Your task to perform on an android device: See recent photos Image 0: 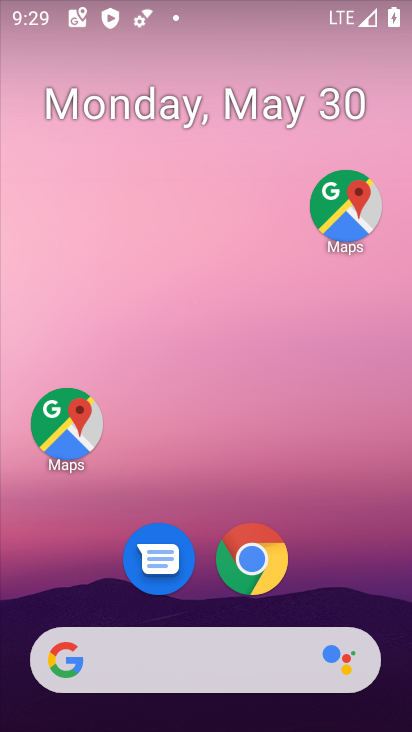
Step 0: drag from (316, 565) to (364, 132)
Your task to perform on an android device: See recent photos Image 1: 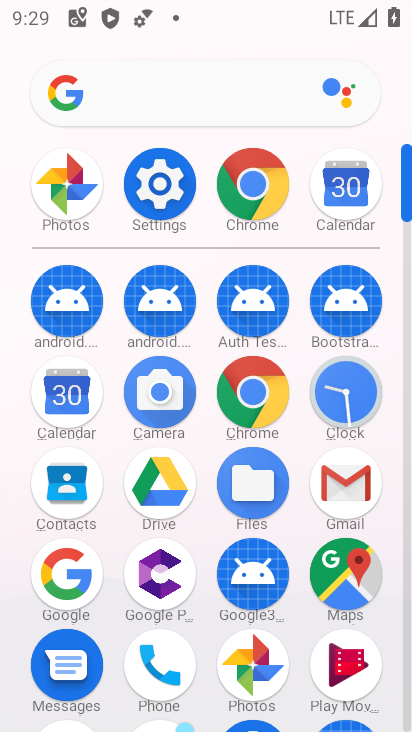
Step 1: click (250, 658)
Your task to perform on an android device: See recent photos Image 2: 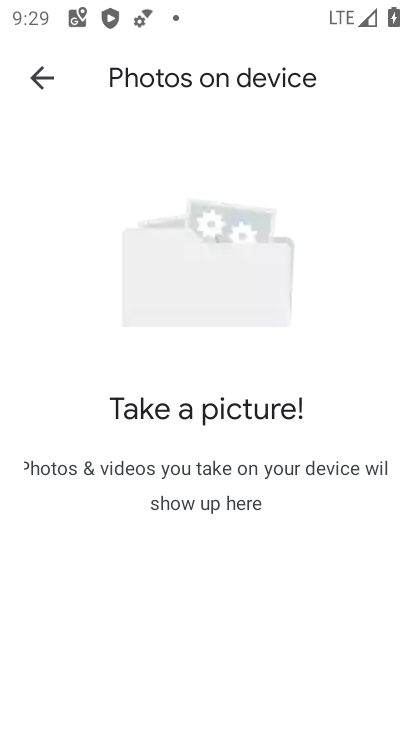
Step 2: click (39, 78)
Your task to perform on an android device: See recent photos Image 3: 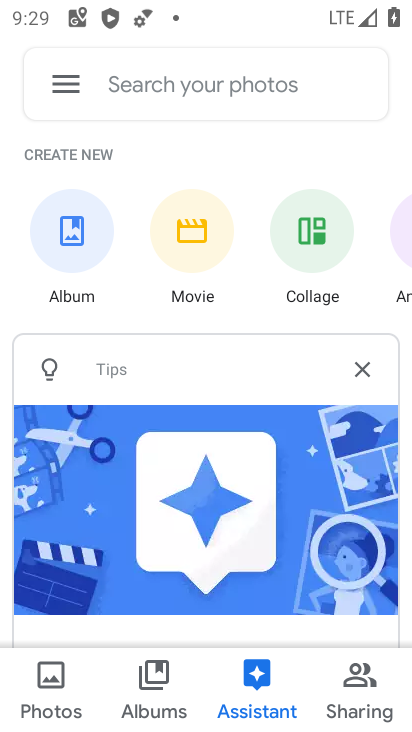
Step 3: click (67, 693)
Your task to perform on an android device: See recent photos Image 4: 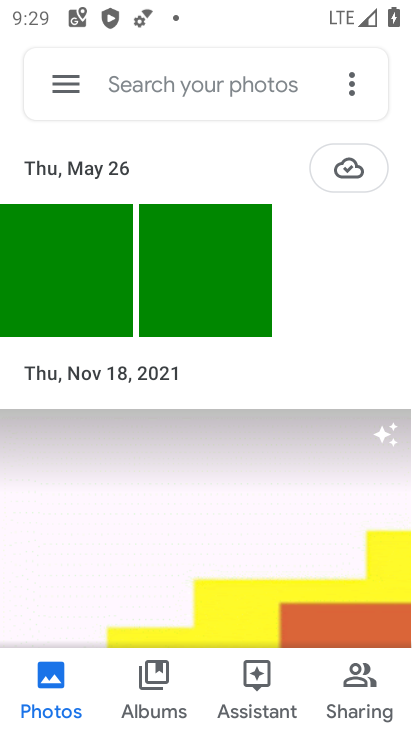
Step 4: task complete